Your task to perform on an android device: check data usage Image 0: 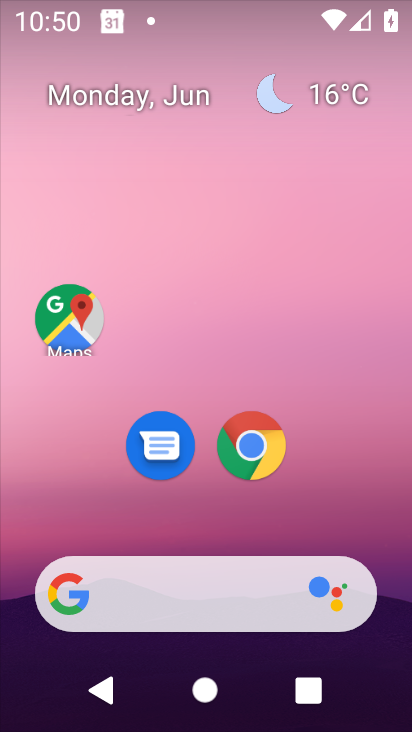
Step 0: press home button
Your task to perform on an android device: check data usage Image 1: 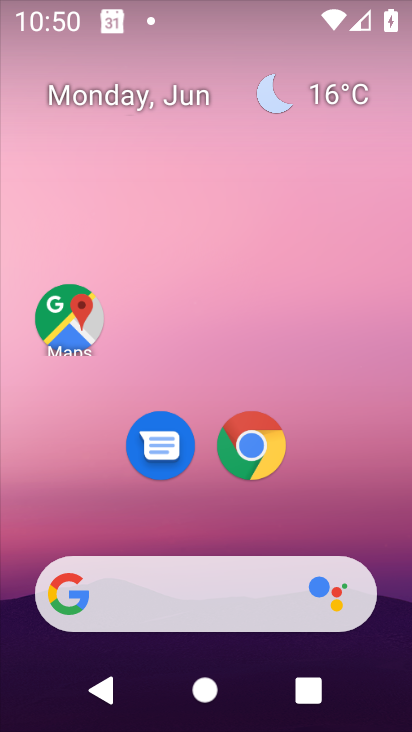
Step 1: drag from (218, 546) to (172, 13)
Your task to perform on an android device: check data usage Image 2: 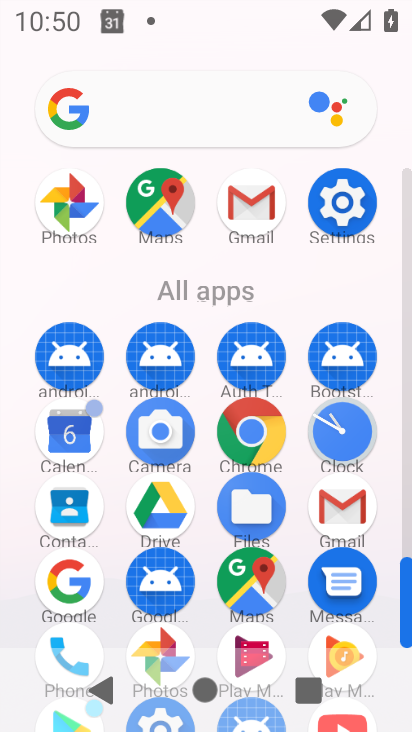
Step 2: click (324, 191)
Your task to perform on an android device: check data usage Image 3: 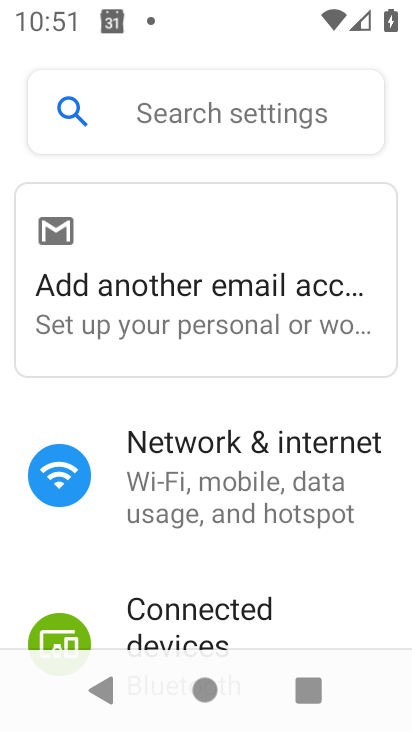
Step 3: drag from (321, 552) to (291, 242)
Your task to perform on an android device: check data usage Image 4: 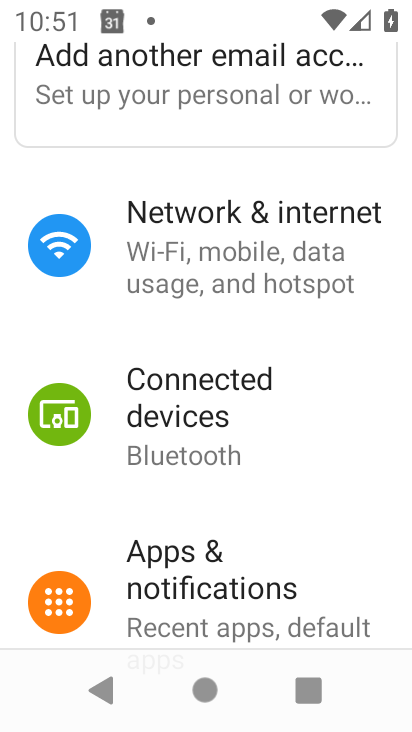
Step 4: click (291, 242)
Your task to perform on an android device: check data usage Image 5: 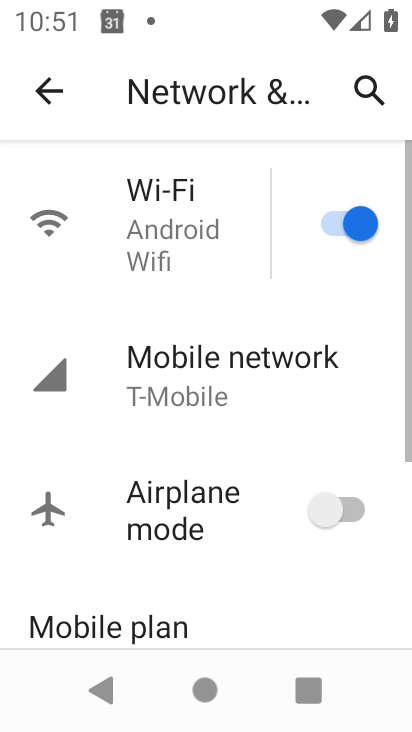
Step 5: click (187, 315)
Your task to perform on an android device: check data usage Image 6: 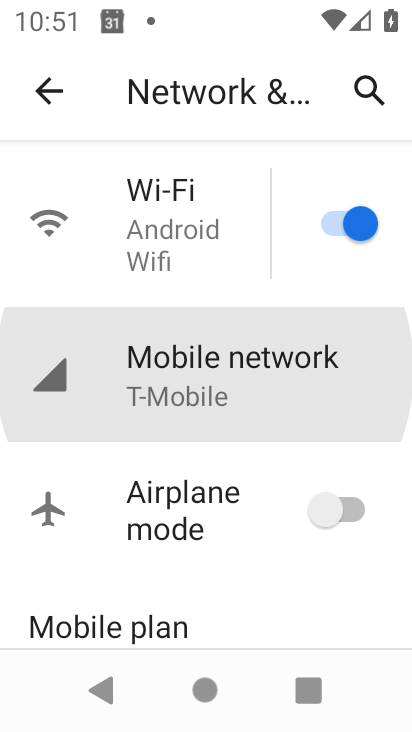
Step 6: click (199, 375)
Your task to perform on an android device: check data usage Image 7: 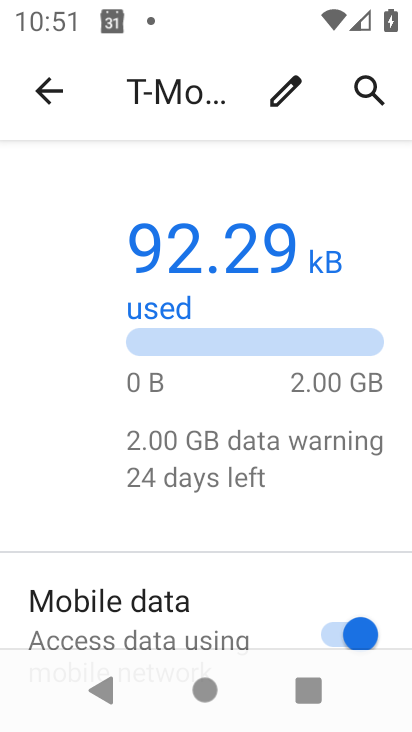
Step 7: drag from (228, 580) to (296, 137)
Your task to perform on an android device: check data usage Image 8: 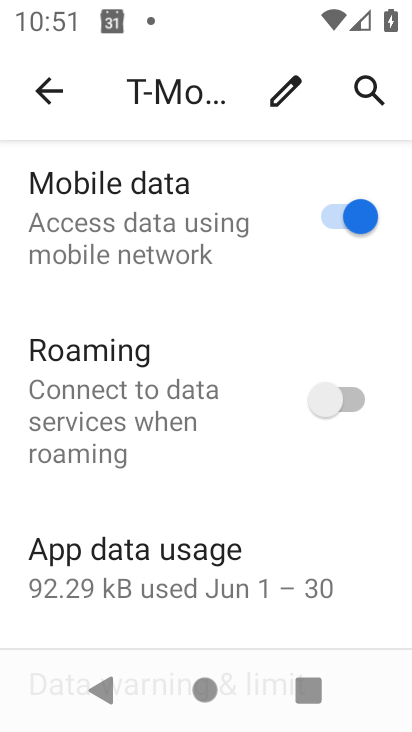
Step 8: click (150, 552)
Your task to perform on an android device: check data usage Image 9: 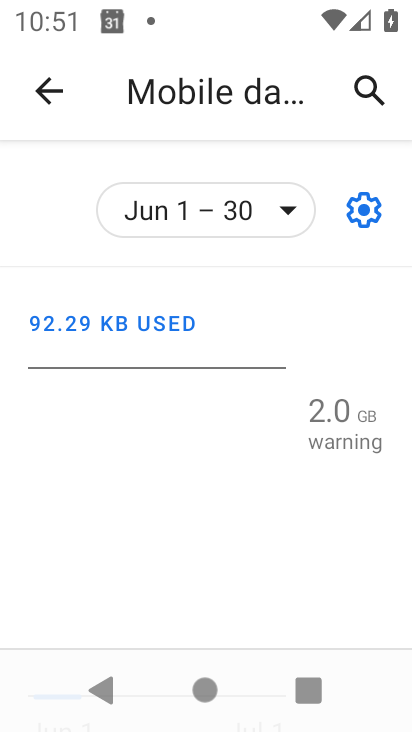
Step 9: task complete